Your task to perform on an android device: turn off notifications in google photos Image 0: 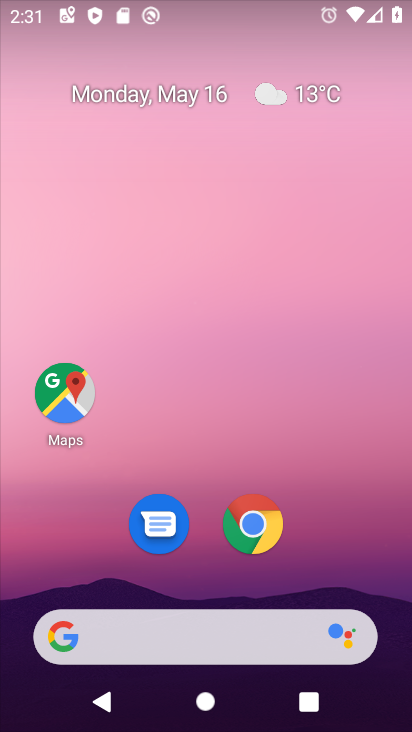
Step 0: drag from (339, 516) to (286, 35)
Your task to perform on an android device: turn off notifications in google photos Image 1: 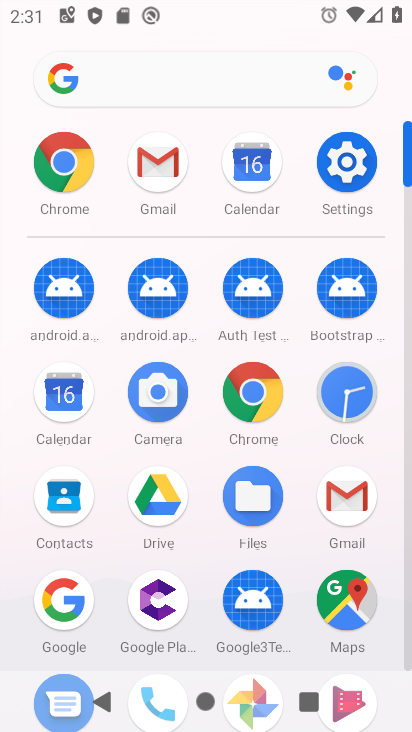
Step 1: click (339, 162)
Your task to perform on an android device: turn off notifications in google photos Image 2: 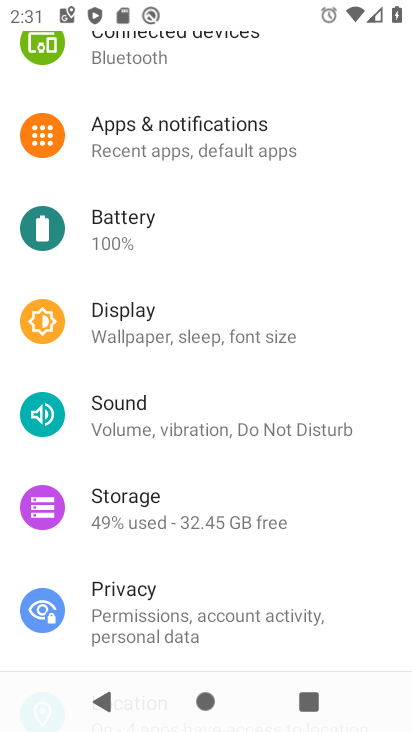
Step 2: click (216, 138)
Your task to perform on an android device: turn off notifications in google photos Image 3: 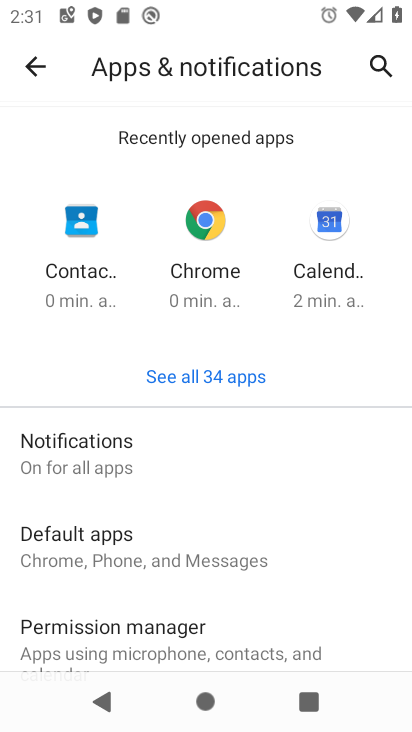
Step 3: click (200, 361)
Your task to perform on an android device: turn off notifications in google photos Image 4: 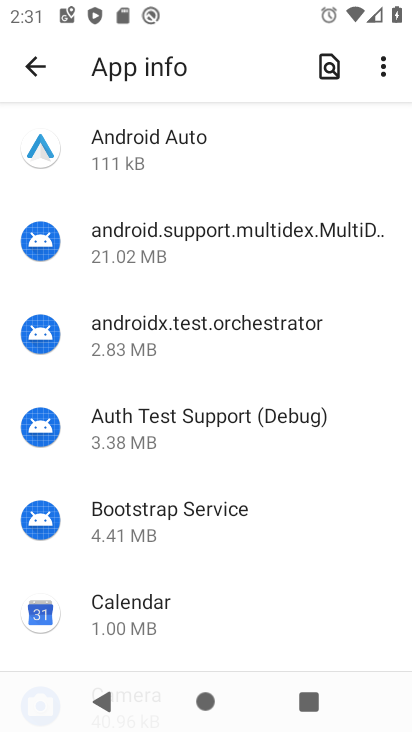
Step 4: drag from (224, 622) to (290, 37)
Your task to perform on an android device: turn off notifications in google photos Image 5: 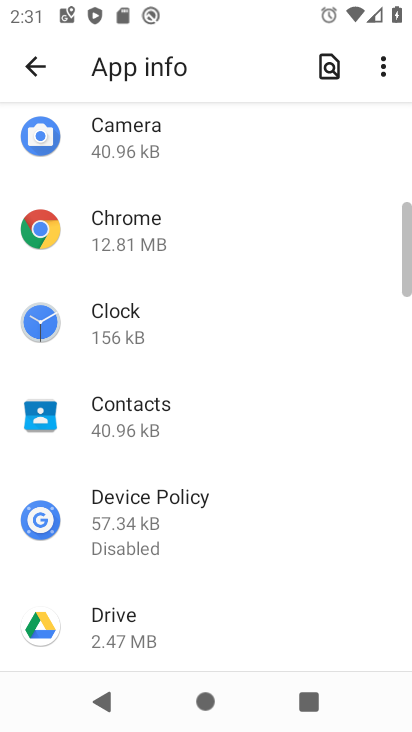
Step 5: drag from (231, 653) to (264, 2)
Your task to perform on an android device: turn off notifications in google photos Image 6: 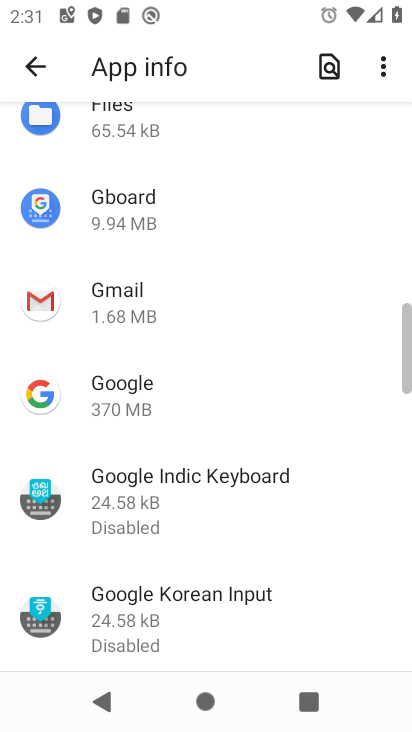
Step 6: drag from (221, 638) to (235, 1)
Your task to perform on an android device: turn off notifications in google photos Image 7: 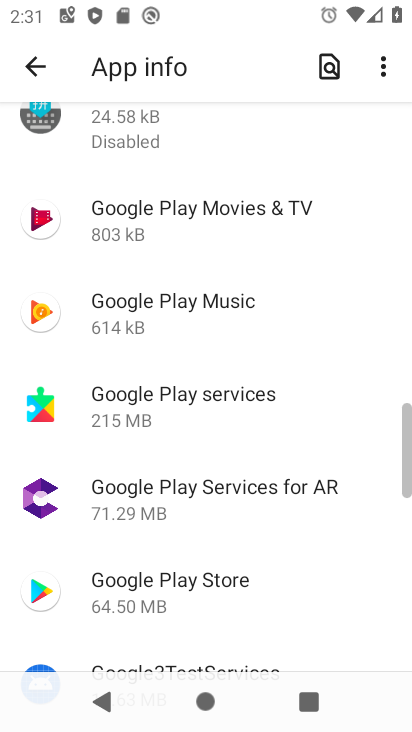
Step 7: drag from (225, 603) to (217, 89)
Your task to perform on an android device: turn off notifications in google photos Image 8: 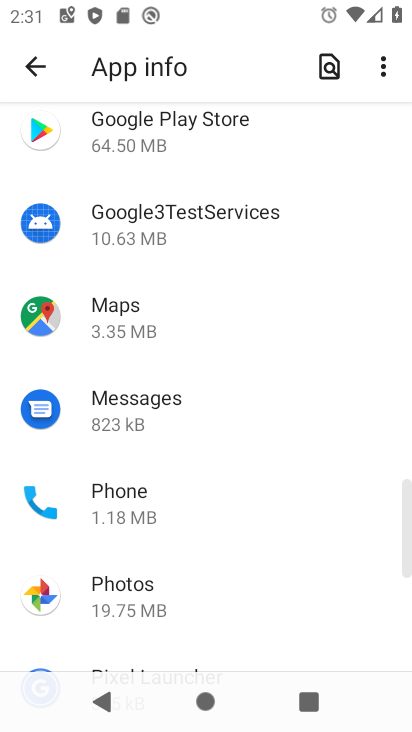
Step 8: click (179, 600)
Your task to perform on an android device: turn off notifications in google photos Image 9: 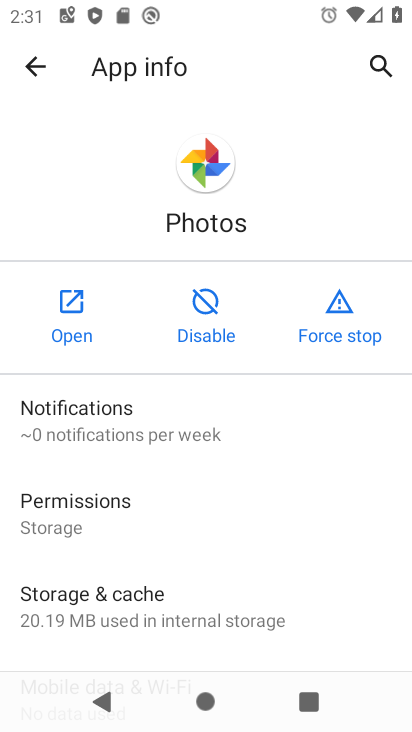
Step 9: click (179, 420)
Your task to perform on an android device: turn off notifications in google photos Image 10: 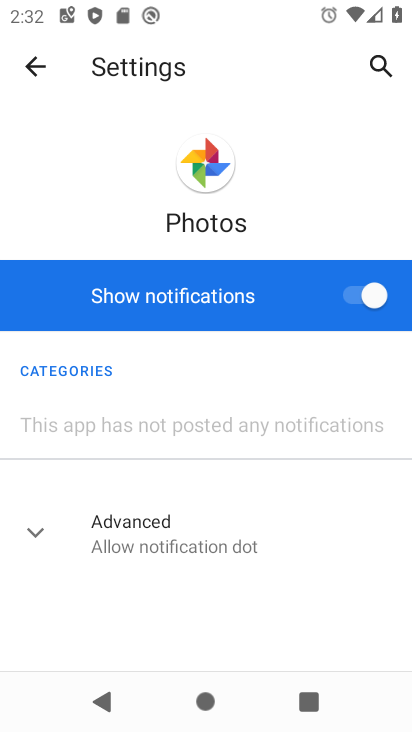
Step 10: click (352, 295)
Your task to perform on an android device: turn off notifications in google photos Image 11: 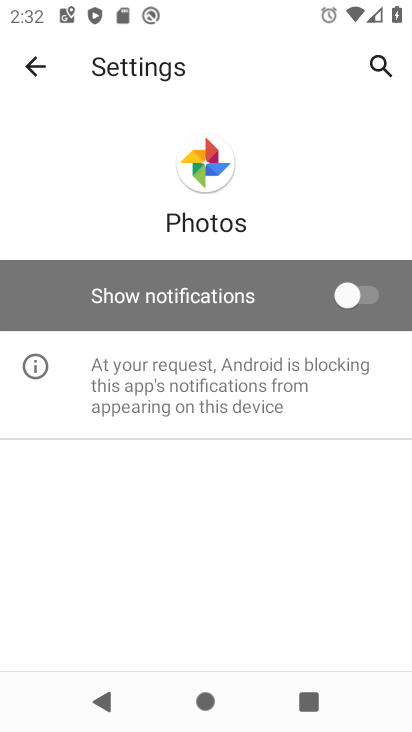
Step 11: task complete